Your task to perform on an android device: Go to calendar. Show me events next week Image 0: 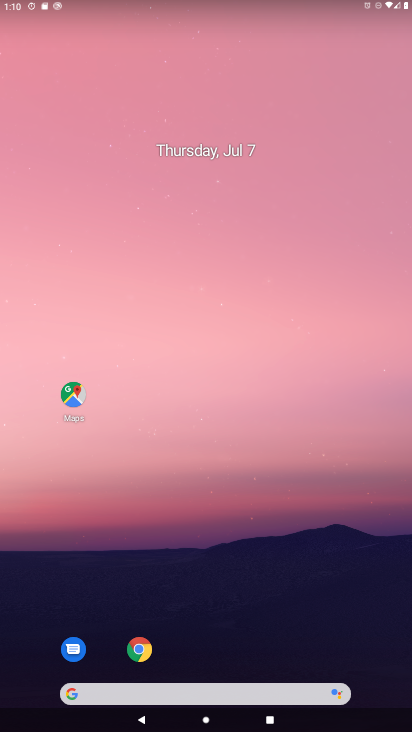
Step 0: drag from (225, 656) to (234, 2)
Your task to perform on an android device: Go to calendar. Show me events next week Image 1: 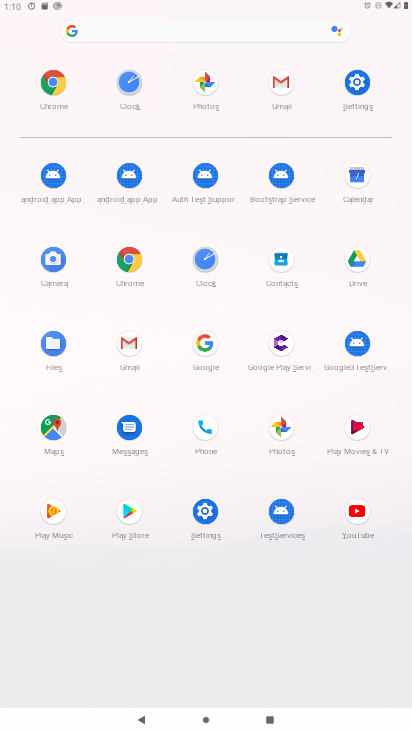
Step 1: click (351, 186)
Your task to perform on an android device: Go to calendar. Show me events next week Image 2: 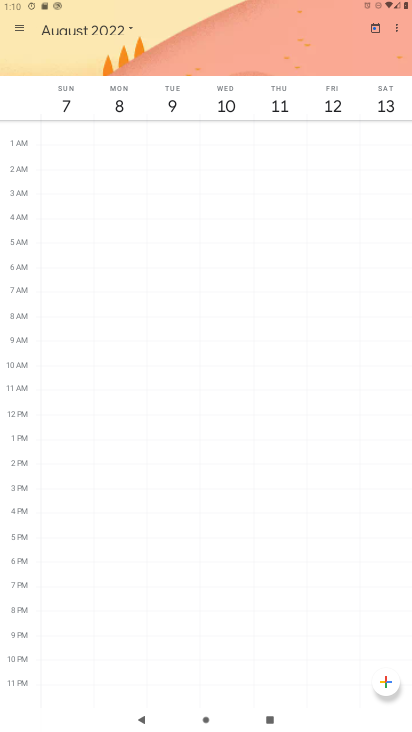
Step 2: click (15, 28)
Your task to perform on an android device: Go to calendar. Show me events next week Image 3: 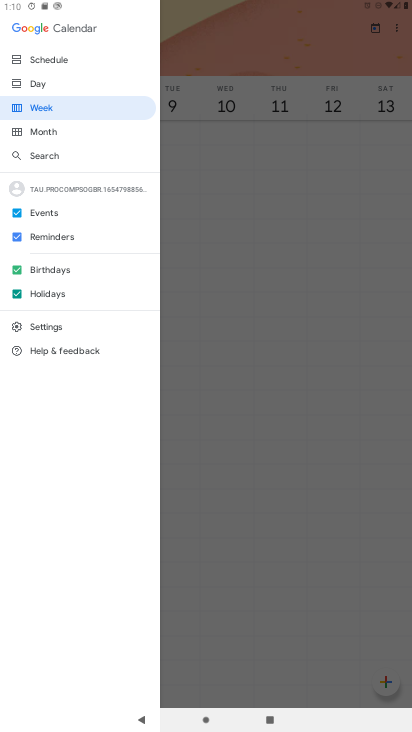
Step 3: click (37, 102)
Your task to perform on an android device: Go to calendar. Show me events next week Image 4: 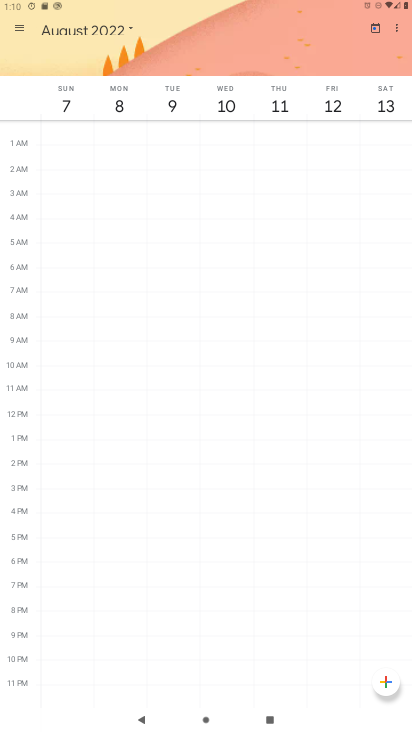
Step 4: click (37, 102)
Your task to perform on an android device: Go to calendar. Show me events next week Image 5: 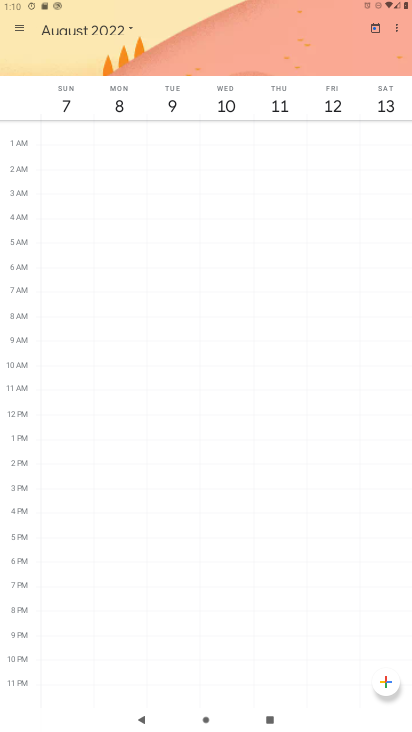
Step 5: click (373, 31)
Your task to perform on an android device: Go to calendar. Show me events next week Image 6: 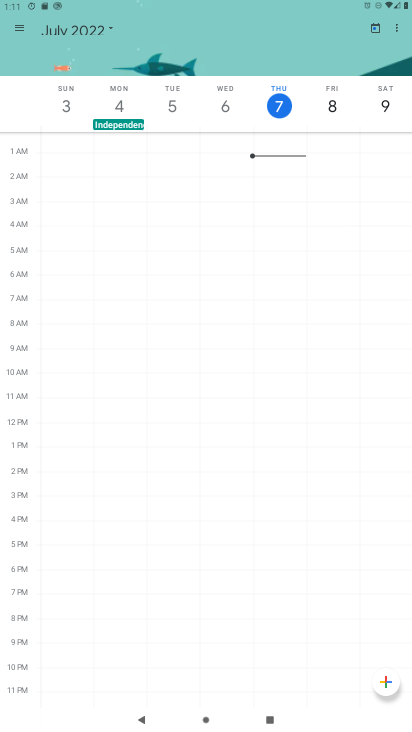
Step 6: task complete